Your task to perform on an android device: set an alarm Image 0: 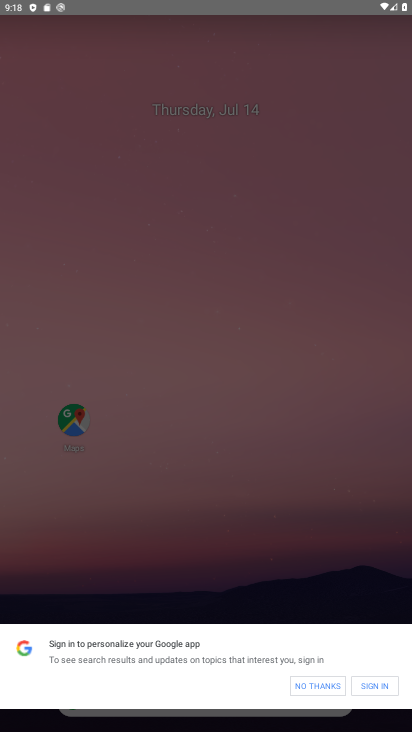
Step 0: press home button
Your task to perform on an android device: set an alarm Image 1: 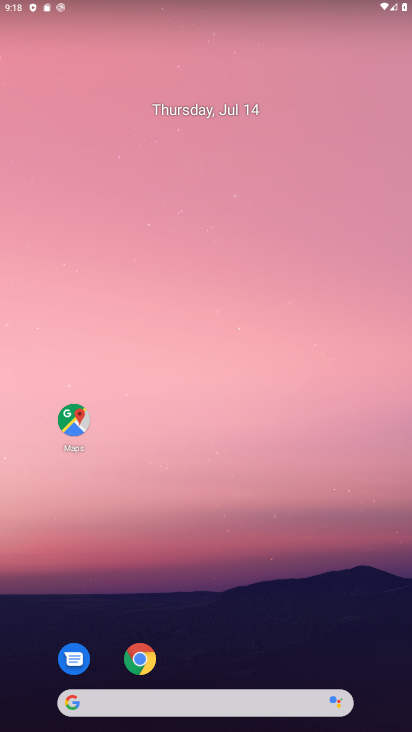
Step 1: drag from (242, 695) to (249, 299)
Your task to perform on an android device: set an alarm Image 2: 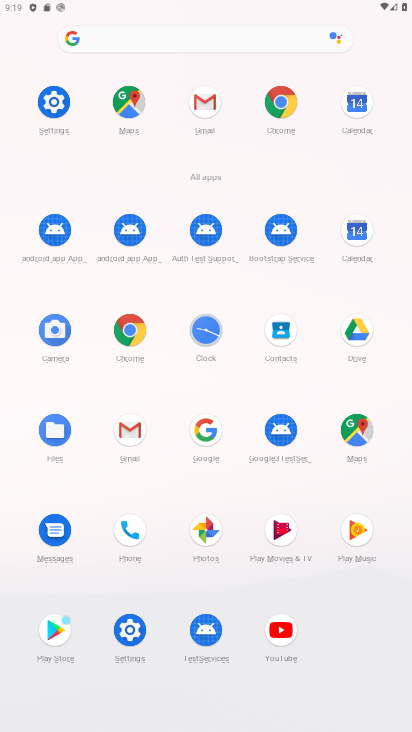
Step 2: click (206, 338)
Your task to perform on an android device: set an alarm Image 3: 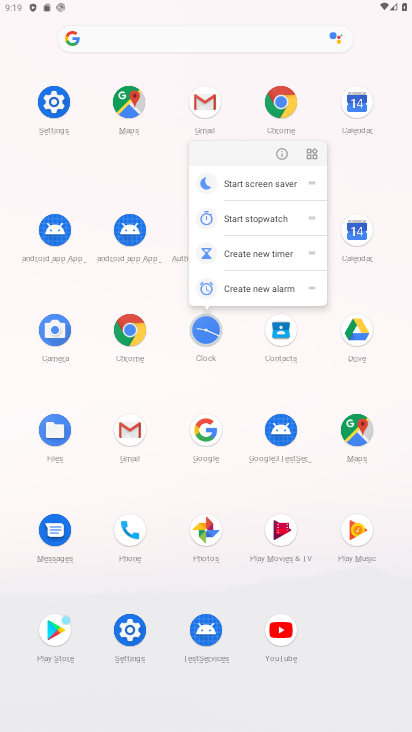
Step 3: click (201, 325)
Your task to perform on an android device: set an alarm Image 4: 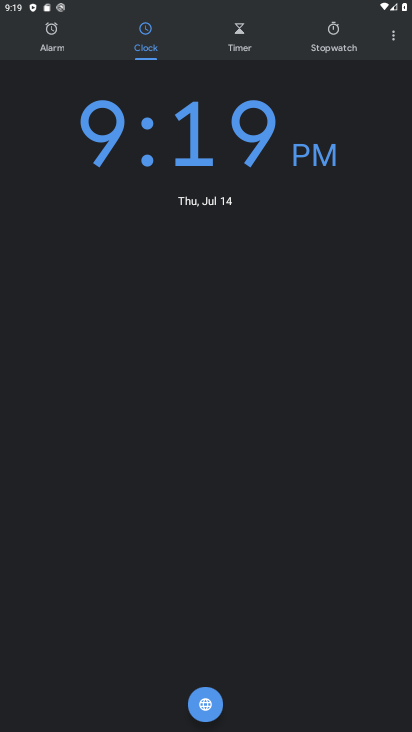
Step 4: click (30, 31)
Your task to perform on an android device: set an alarm Image 5: 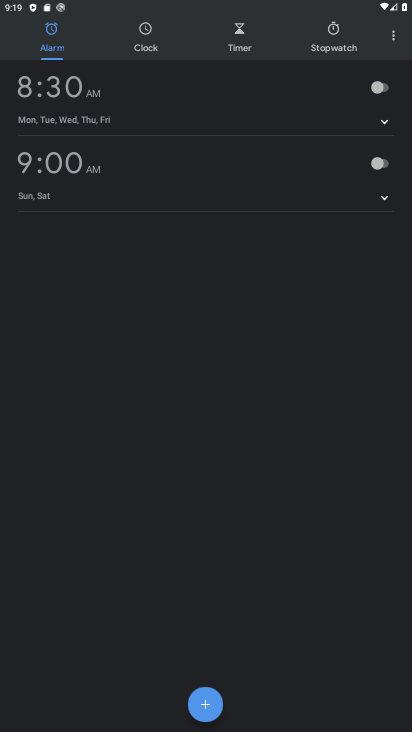
Step 5: click (380, 87)
Your task to perform on an android device: set an alarm Image 6: 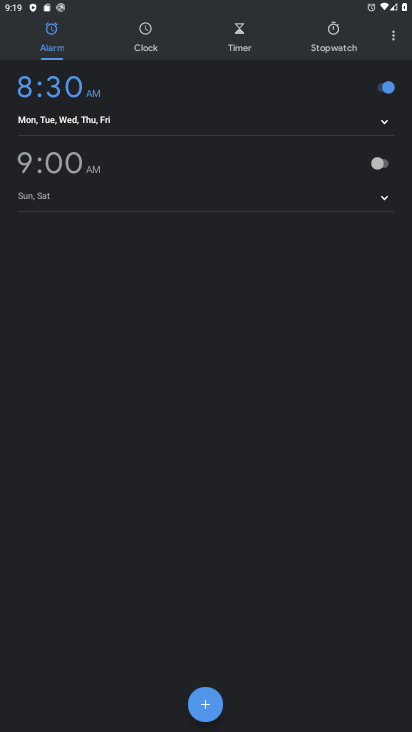
Step 6: task complete